Your task to perform on an android device: Go to Amazon Image 0: 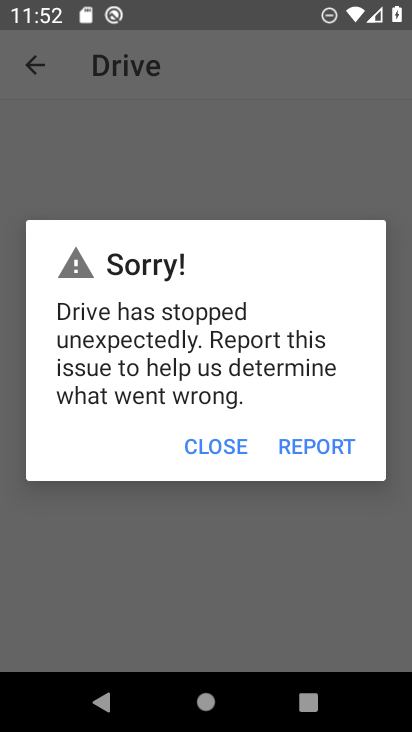
Step 0: press home button
Your task to perform on an android device: Go to Amazon Image 1: 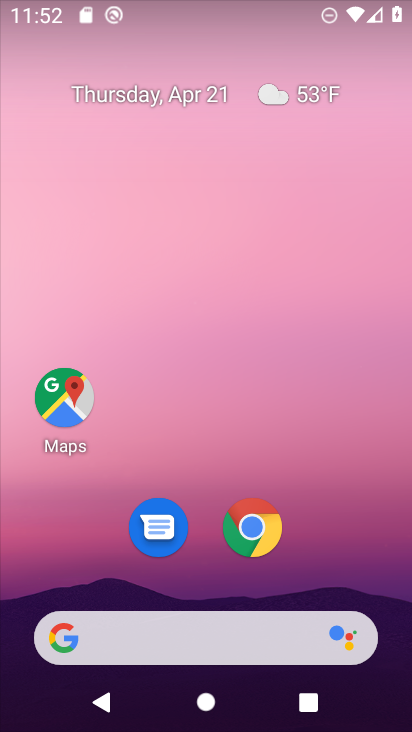
Step 1: drag from (352, 537) to (344, 185)
Your task to perform on an android device: Go to Amazon Image 2: 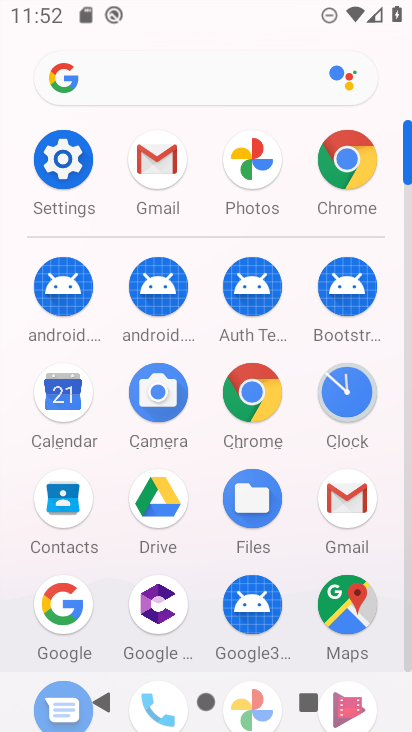
Step 2: click (248, 383)
Your task to perform on an android device: Go to Amazon Image 3: 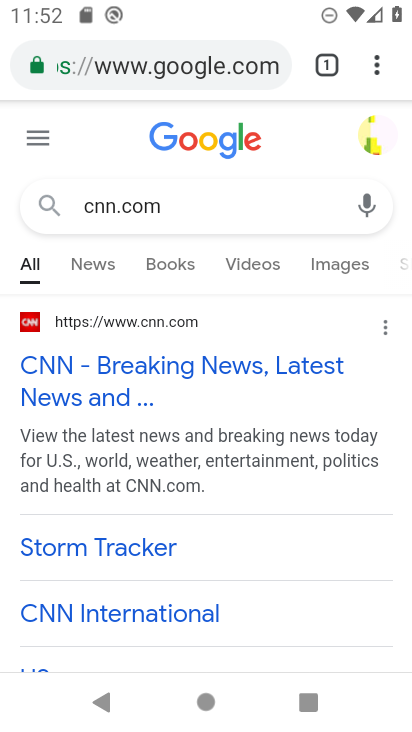
Step 3: click (261, 61)
Your task to perform on an android device: Go to Amazon Image 4: 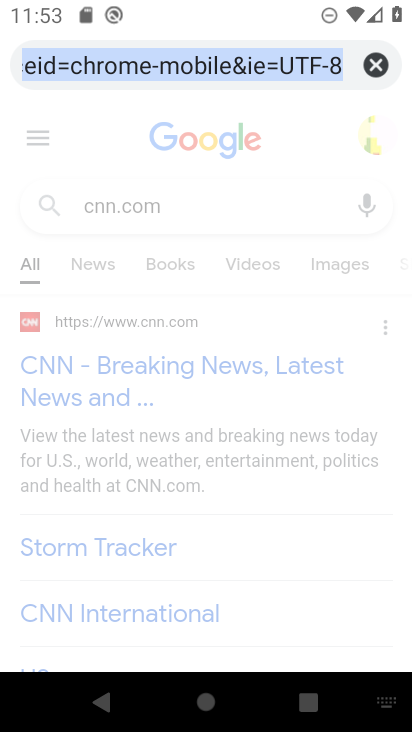
Step 4: click (376, 63)
Your task to perform on an android device: Go to Amazon Image 5: 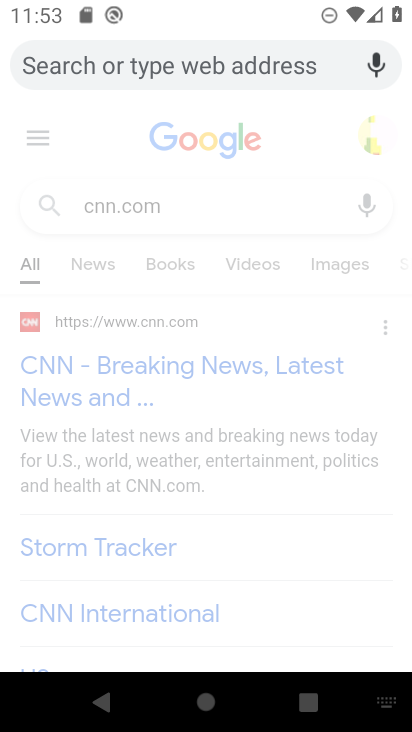
Step 5: type "amazon"
Your task to perform on an android device: Go to Amazon Image 6: 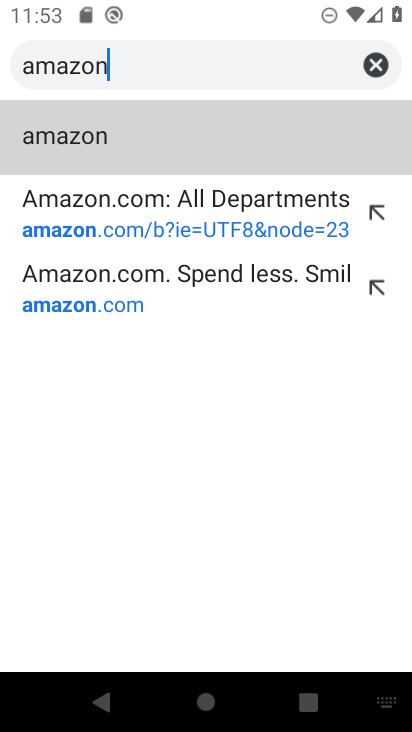
Step 6: click (198, 150)
Your task to perform on an android device: Go to Amazon Image 7: 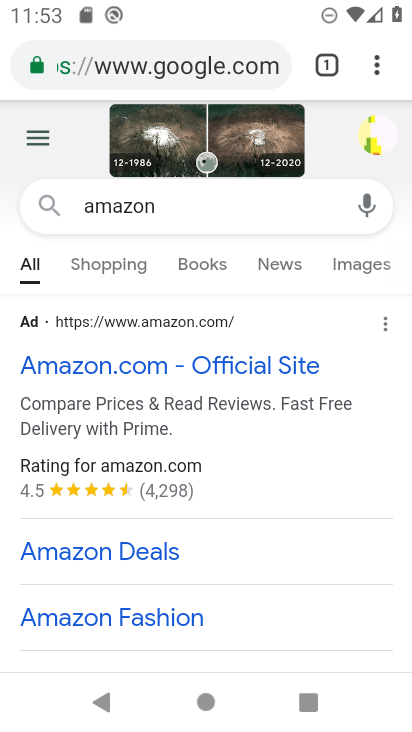
Step 7: click (201, 360)
Your task to perform on an android device: Go to Amazon Image 8: 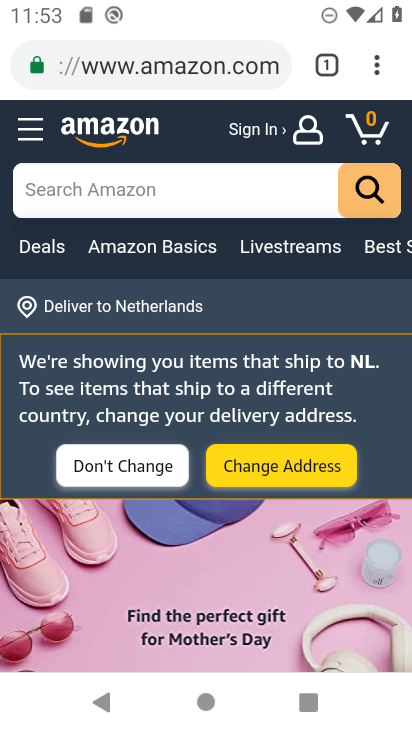
Step 8: task complete